Your task to perform on an android device: Go to ESPN.com Image 0: 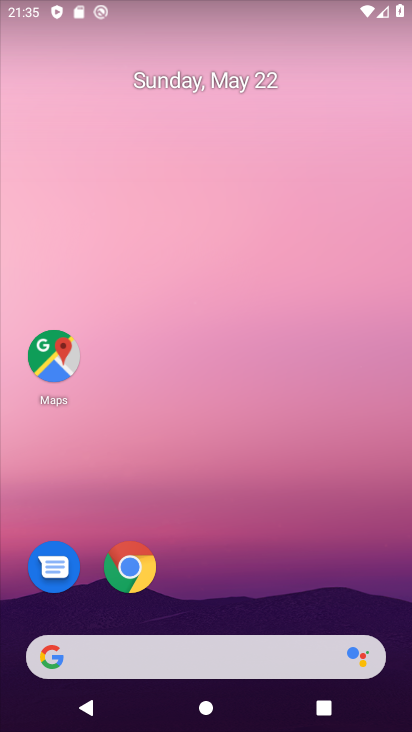
Step 0: click (138, 572)
Your task to perform on an android device: Go to ESPN.com Image 1: 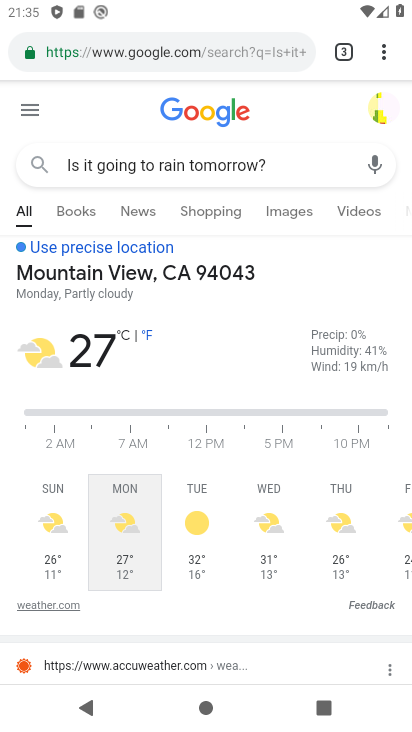
Step 1: click (308, 163)
Your task to perform on an android device: Go to ESPN.com Image 2: 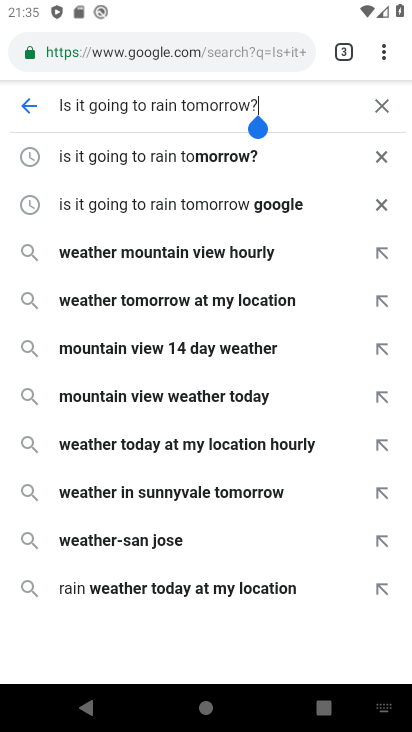
Step 2: click (380, 105)
Your task to perform on an android device: Go to ESPN.com Image 3: 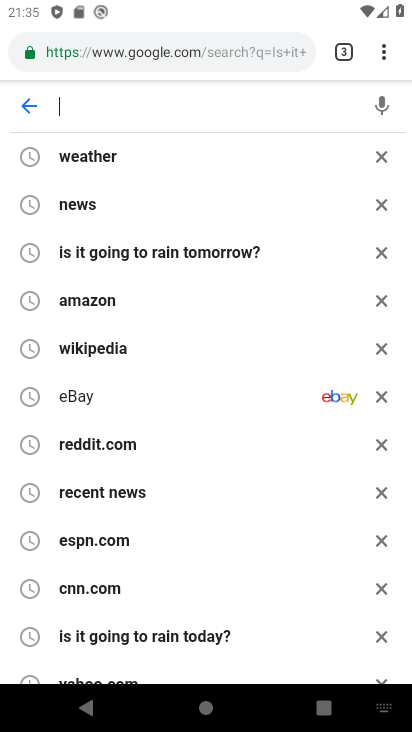
Step 3: click (139, 535)
Your task to perform on an android device: Go to ESPN.com Image 4: 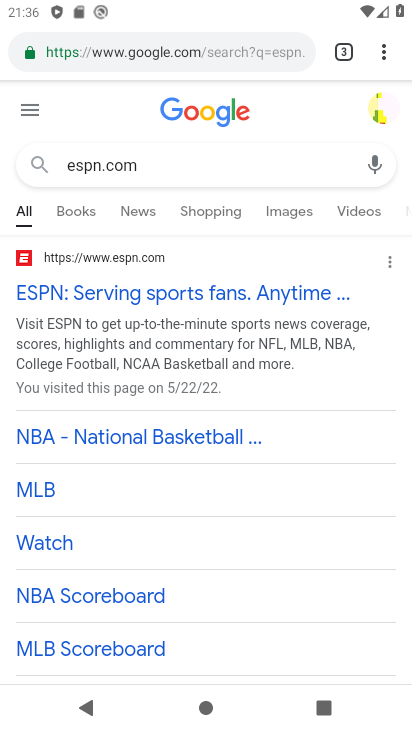
Step 4: task complete